Your task to perform on an android device: Search for seafood restaurants on Google Maps Image 0: 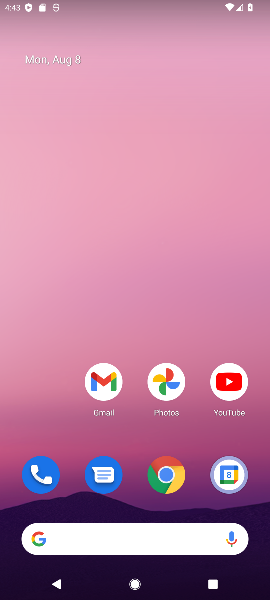
Step 0: press home button
Your task to perform on an android device: Search for seafood restaurants on Google Maps Image 1: 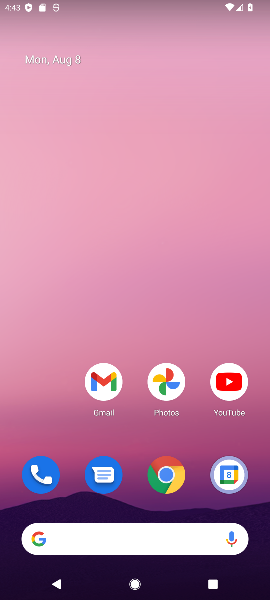
Step 1: drag from (59, 363) to (63, 215)
Your task to perform on an android device: Search for seafood restaurants on Google Maps Image 2: 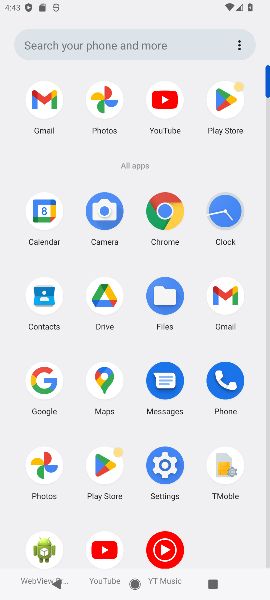
Step 2: click (104, 381)
Your task to perform on an android device: Search for seafood restaurants on Google Maps Image 3: 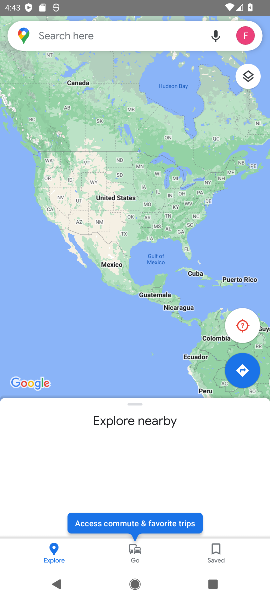
Step 3: click (114, 30)
Your task to perform on an android device: Search for seafood restaurants on Google Maps Image 4: 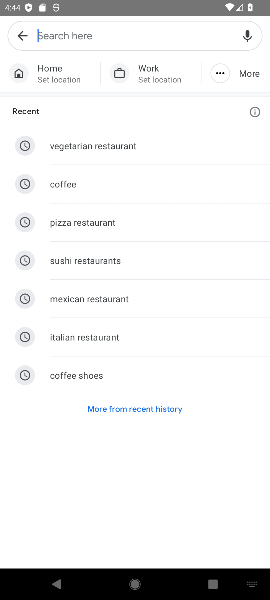
Step 4: type "seafood restaurants"
Your task to perform on an android device: Search for seafood restaurants on Google Maps Image 5: 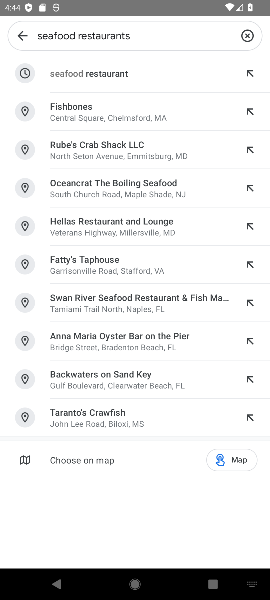
Step 5: click (180, 71)
Your task to perform on an android device: Search for seafood restaurants on Google Maps Image 6: 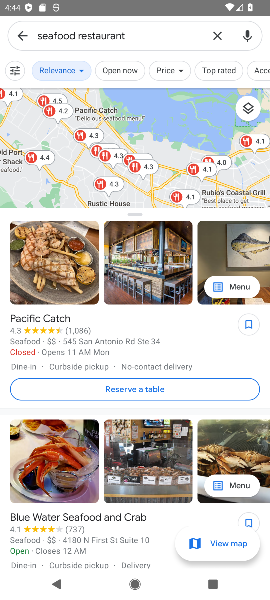
Step 6: task complete